Your task to perform on an android device: see creations saved in the google photos Image 0: 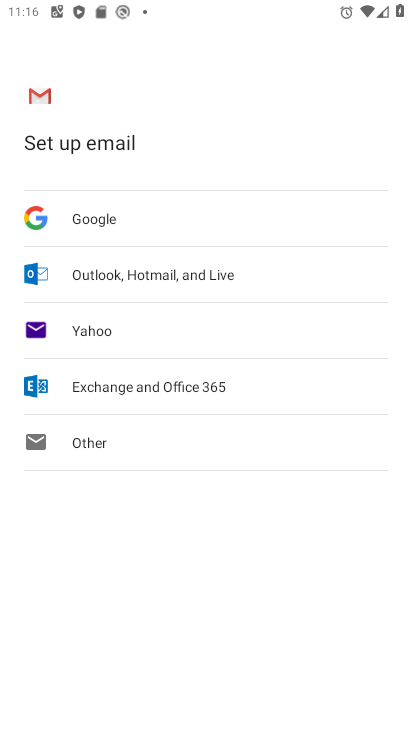
Step 0: press home button
Your task to perform on an android device: see creations saved in the google photos Image 1: 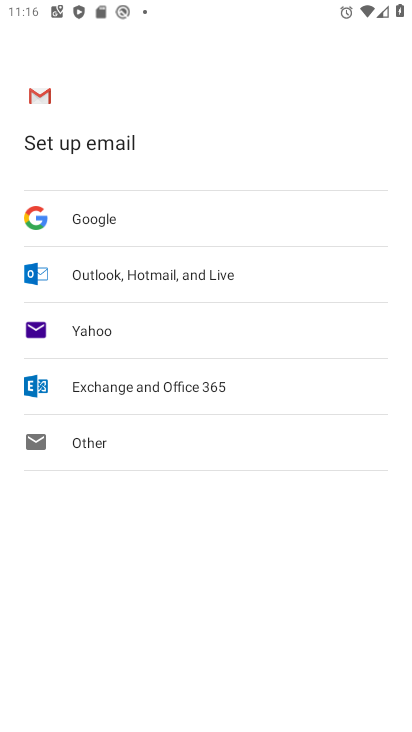
Step 1: press home button
Your task to perform on an android device: see creations saved in the google photos Image 2: 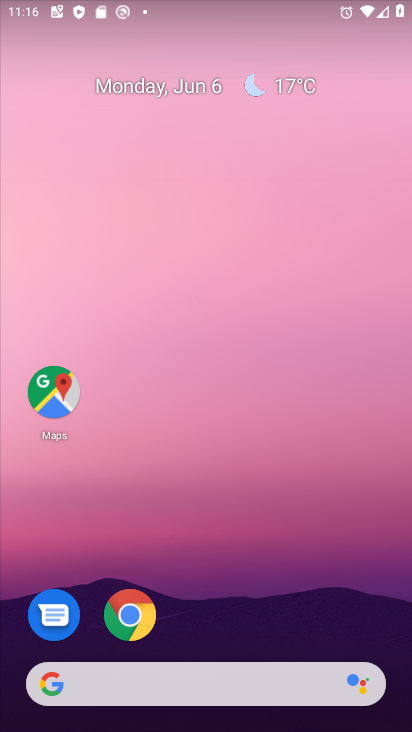
Step 2: drag from (216, 631) to (289, 117)
Your task to perform on an android device: see creations saved in the google photos Image 3: 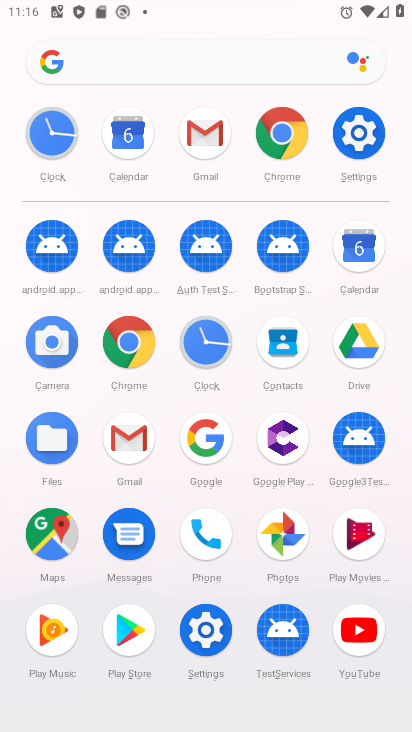
Step 3: click (281, 531)
Your task to perform on an android device: see creations saved in the google photos Image 4: 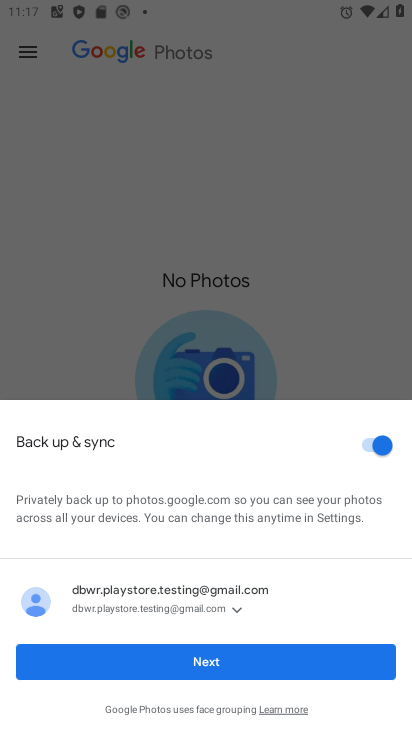
Step 4: click (220, 666)
Your task to perform on an android device: see creations saved in the google photos Image 5: 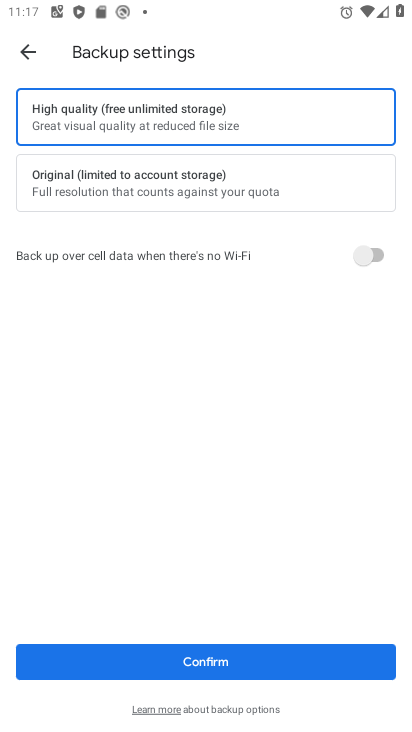
Step 5: click (29, 55)
Your task to perform on an android device: see creations saved in the google photos Image 6: 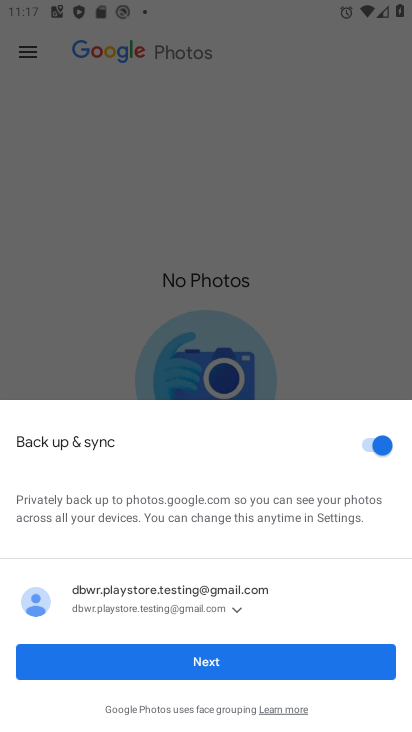
Step 6: click (225, 658)
Your task to perform on an android device: see creations saved in the google photos Image 7: 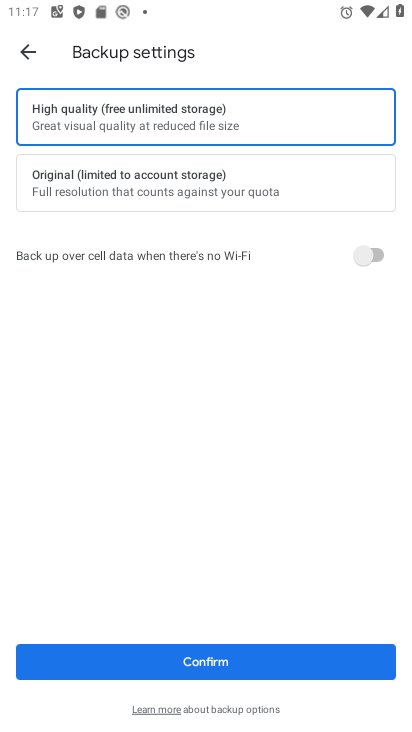
Step 7: click (113, 172)
Your task to perform on an android device: see creations saved in the google photos Image 8: 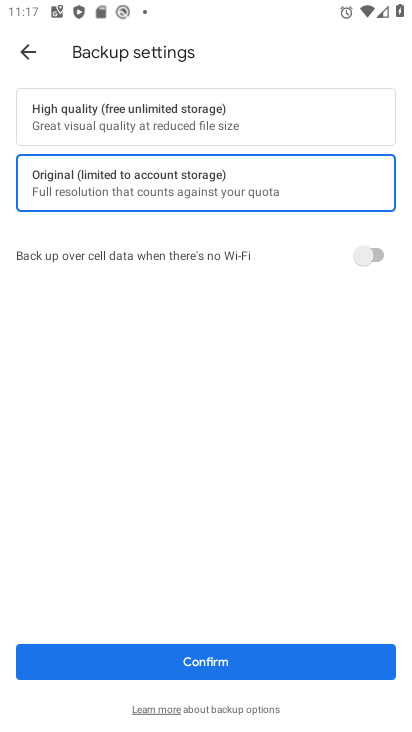
Step 8: click (207, 651)
Your task to perform on an android device: see creations saved in the google photos Image 9: 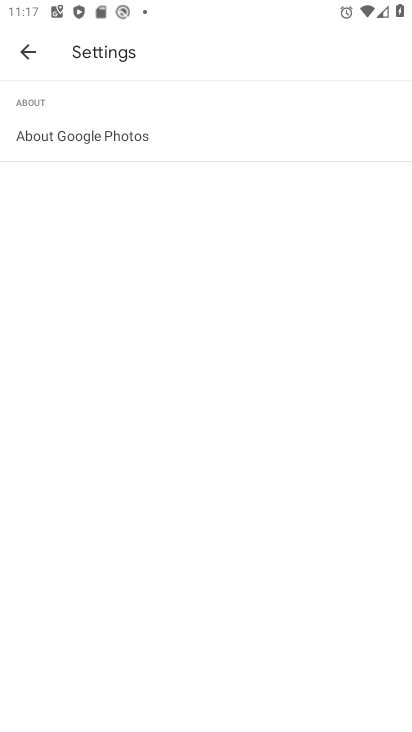
Step 9: click (27, 44)
Your task to perform on an android device: see creations saved in the google photos Image 10: 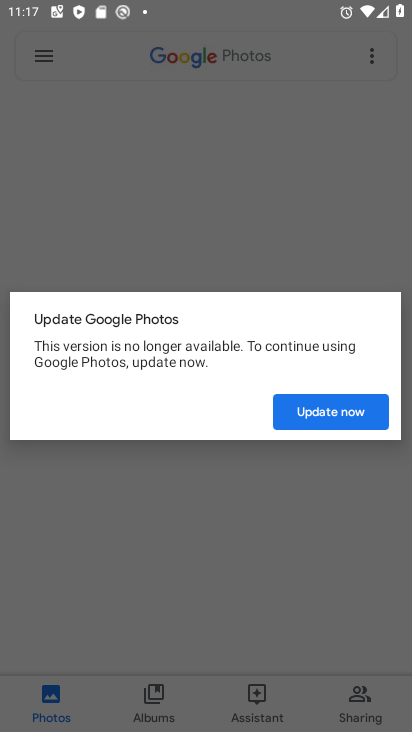
Step 10: click (318, 411)
Your task to perform on an android device: see creations saved in the google photos Image 11: 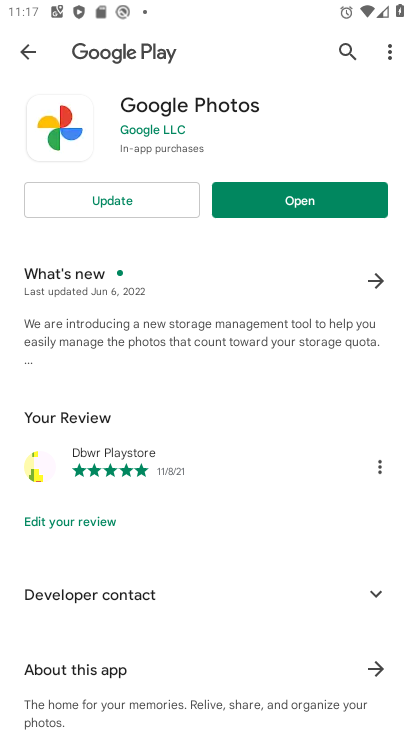
Step 11: click (112, 207)
Your task to perform on an android device: see creations saved in the google photos Image 12: 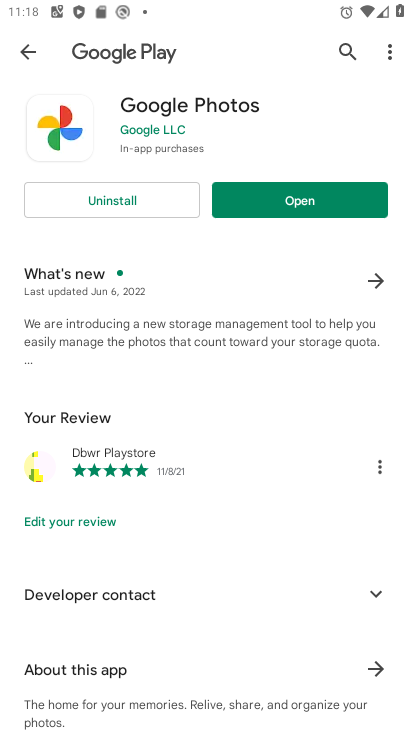
Step 12: click (295, 205)
Your task to perform on an android device: see creations saved in the google photos Image 13: 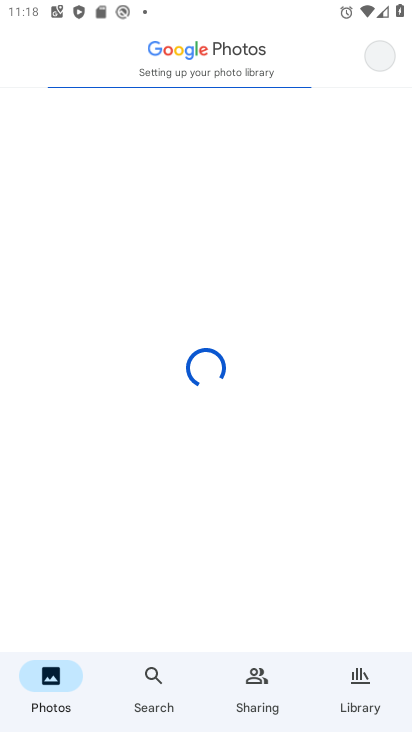
Step 13: click (148, 684)
Your task to perform on an android device: see creations saved in the google photos Image 14: 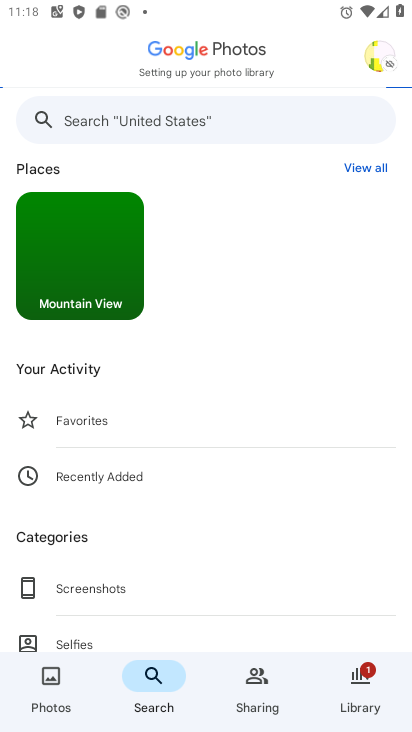
Step 14: drag from (160, 580) to (208, 219)
Your task to perform on an android device: see creations saved in the google photos Image 15: 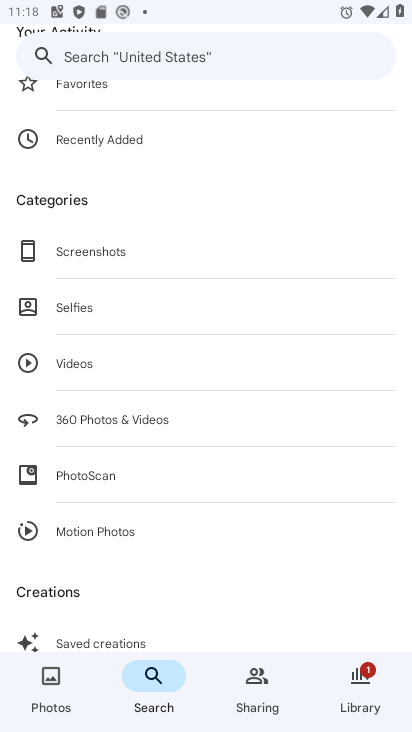
Step 15: click (158, 630)
Your task to perform on an android device: see creations saved in the google photos Image 16: 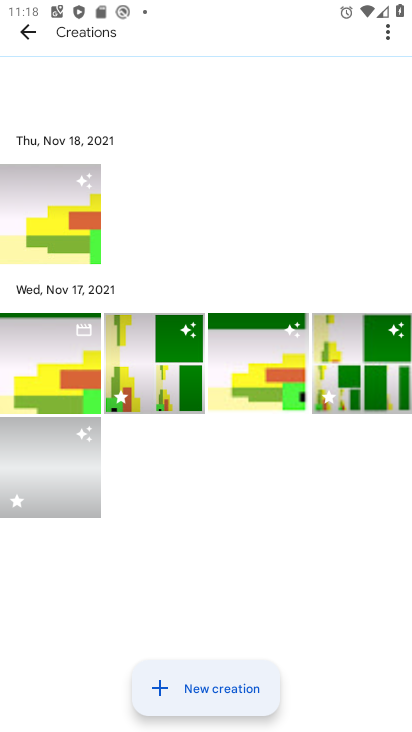
Step 16: task complete